Your task to perform on an android device: Go to Google maps Image 0: 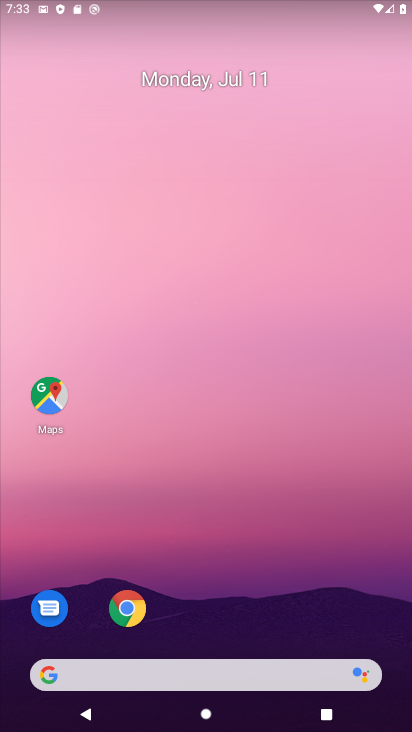
Step 0: drag from (287, 632) to (209, 57)
Your task to perform on an android device: Go to Google maps Image 1: 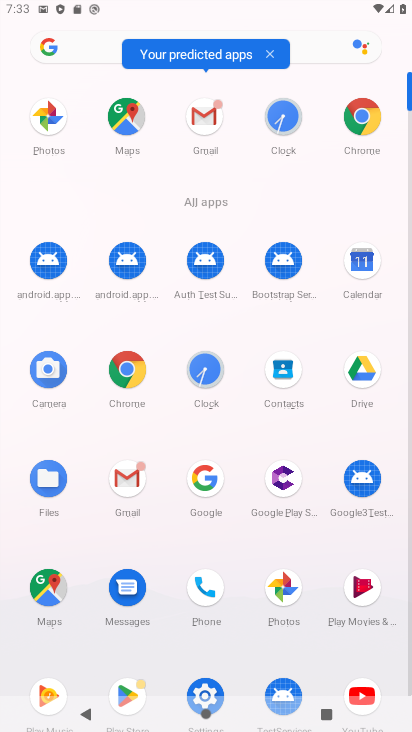
Step 1: click (139, 141)
Your task to perform on an android device: Go to Google maps Image 2: 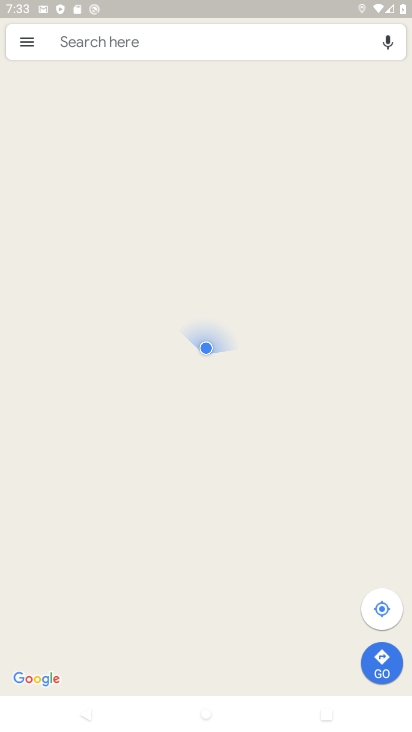
Step 2: task complete